Your task to perform on an android device: check android version Image 0: 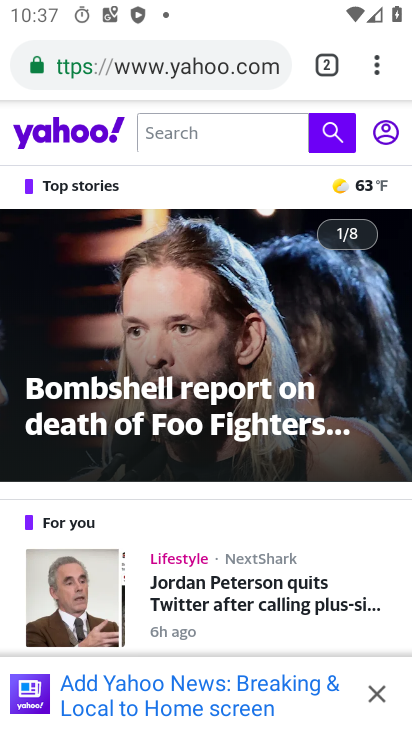
Step 0: press back button
Your task to perform on an android device: check android version Image 1: 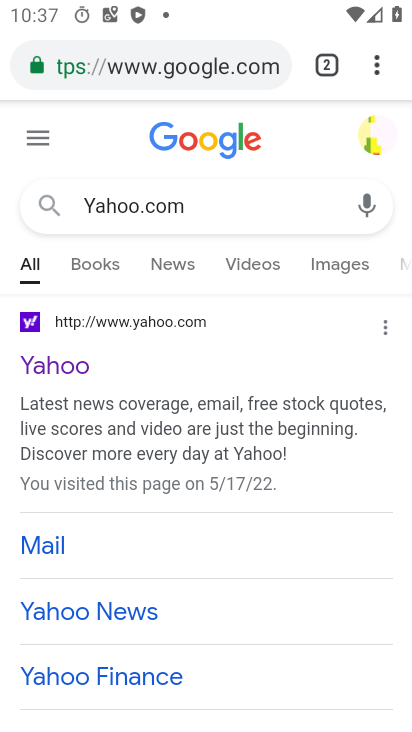
Step 1: press back button
Your task to perform on an android device: check android version Image 2: 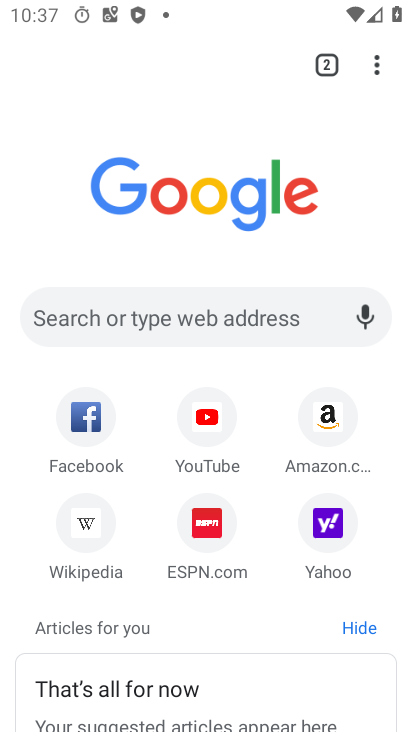
Step 2: press back button
Your task to perform on an android device: check android version Image 3: 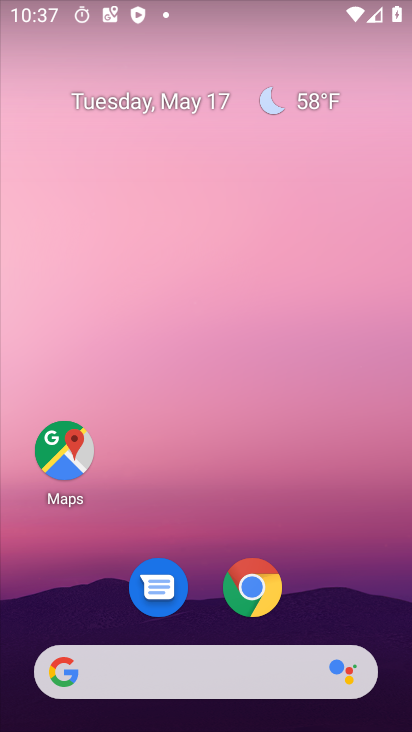
Step 3: drag from (326, 606) to (286, 73)
Your task to perform on an android device: check android version Image 4: 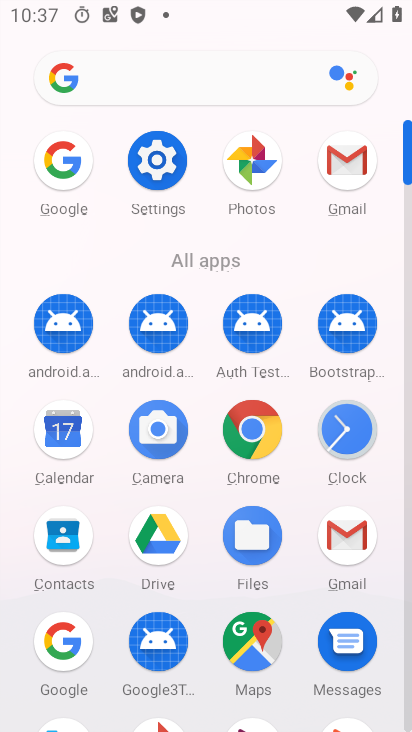
Step 4: click (157, 159)
Your task to perform on an android device: check android version Image 5: 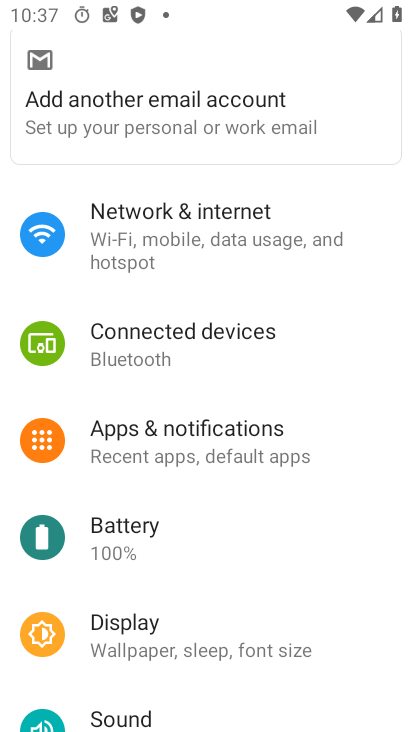
Step 5: drag from (167, 497) to (172, 390)
Your task to perform on an android device: check android version Image 6: 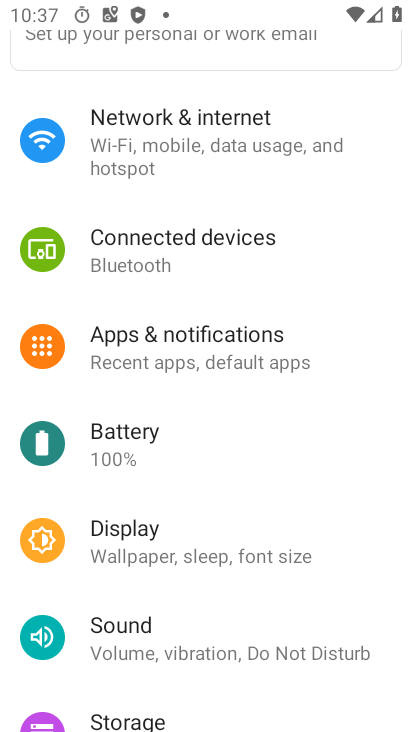
Step 6: drag from (179, 508) to (181, 428)
Your task to perform on an android device: check android version Image 7: 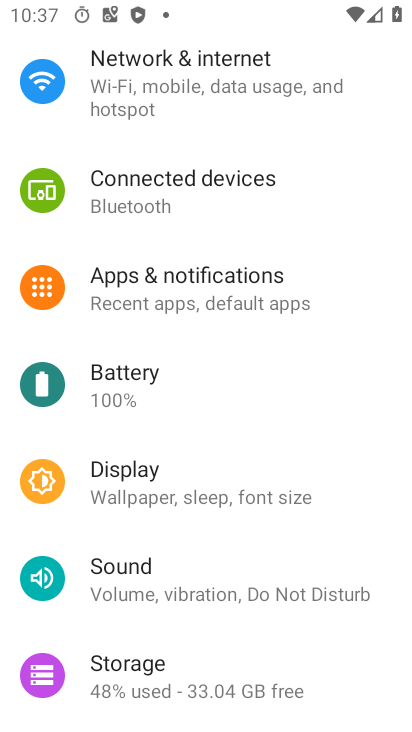
Step 7: drag from (176, 551) to (191, 452)
Your task to perform on an android device: check android version Image 8: 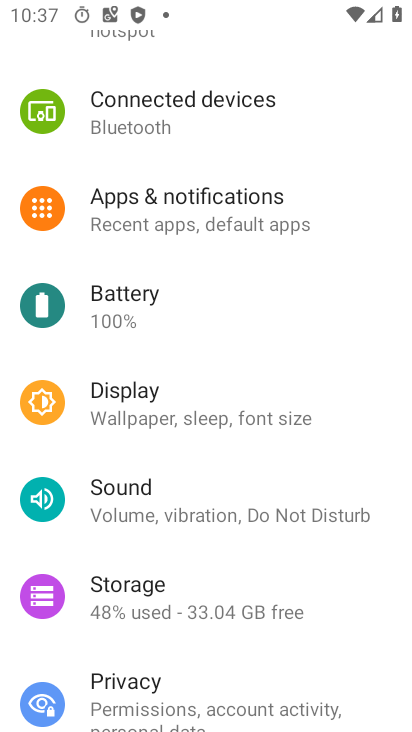
Step 8: drag from (167, 550) to (191, 462)
Your task to perform on an android device: check android version Image 9: 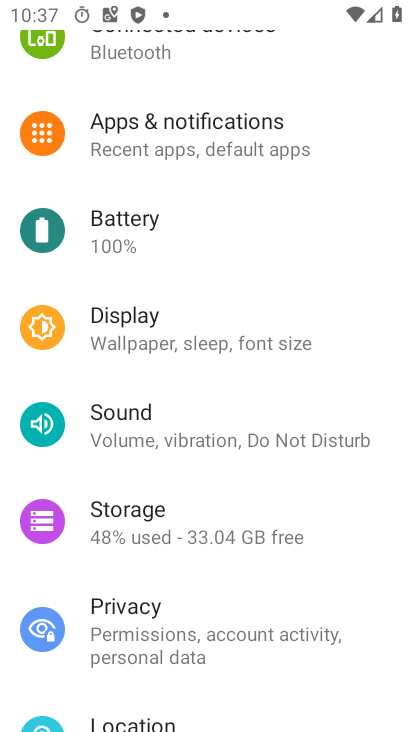
Step 9: drag from (150, 569) to (185, 475)
Your task to perform on an android device: check android version Image 10: 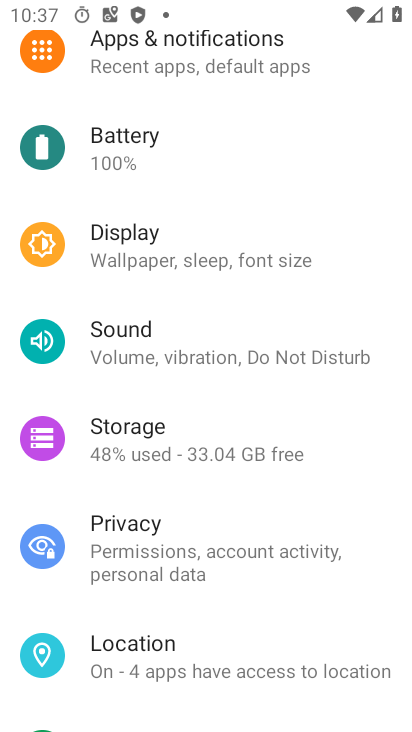
Step 10: drag from (145, 591) to (189, 495)
Your task to perform on an android device: check android version Image 11: 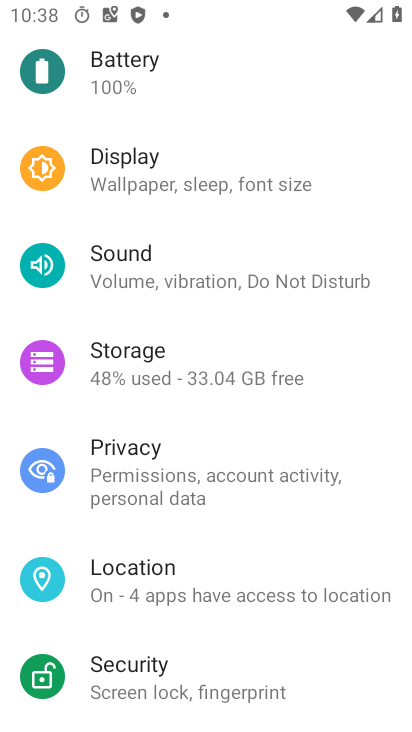
Step 11: drag from (130, 625) to (195, 522)
Your task to perform on an android device: check android version Image 12: 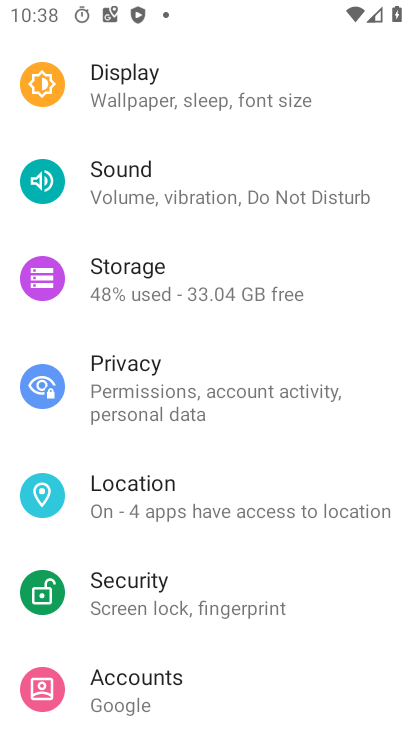
Step 12: drag from (141, 542) to (163, 448)
Your task to perform on an android device: check android version Image 13: 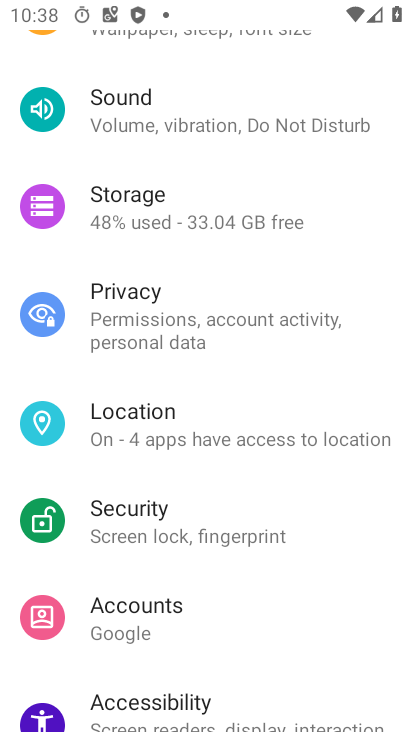
Step 13: drag from (131, 580) to (210, 481)
Your task to perform on an android device: check android version Image 14: 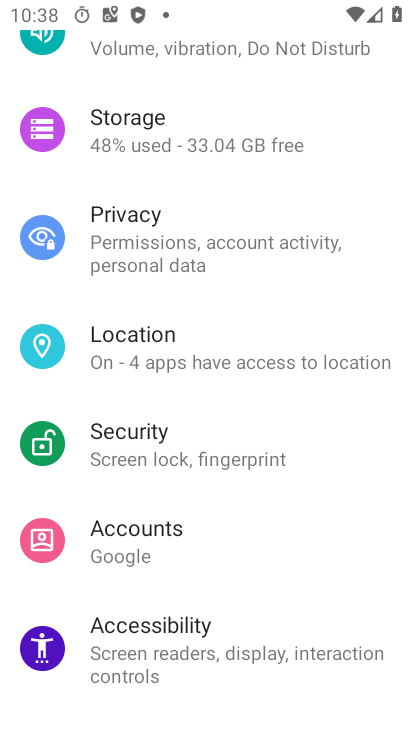
Step 14: drag from (111, 594) to (174, 501)
Your task to perform on an android device: check android version Image 15: 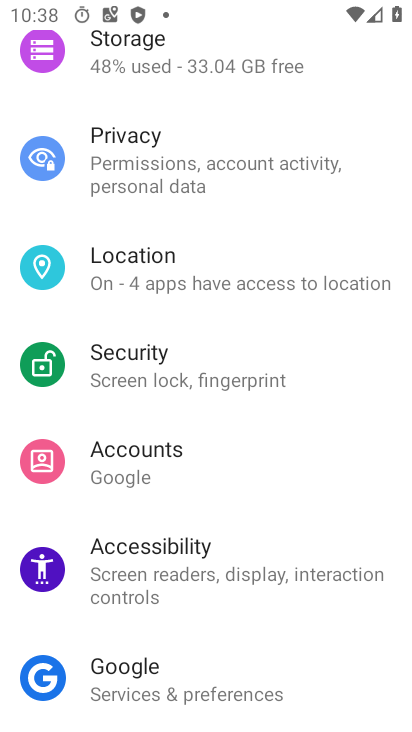
Step 15: drag from (131, 627) to (165, 531)
Your task to perform on an android device: check android version Image 16: 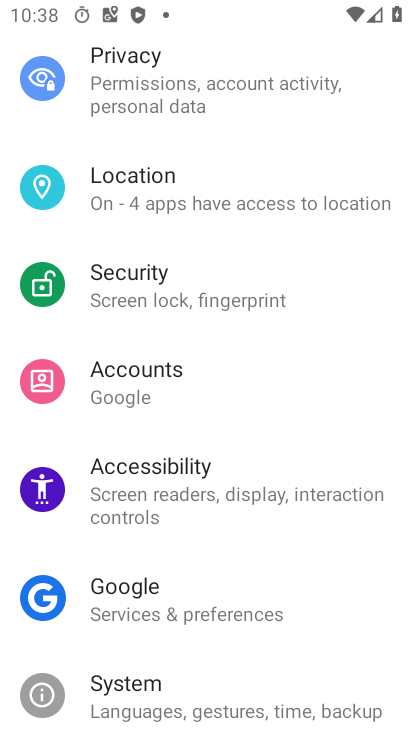
Step 16: drag from (125, 647) to (184, 505)
Your task to perform on an android device: check android version Image 17: 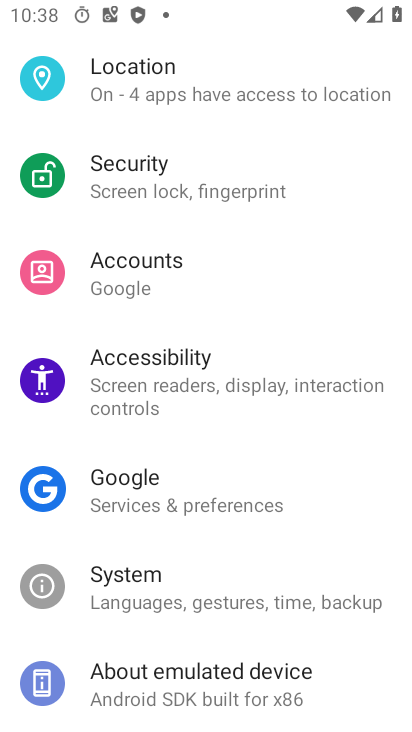
Step 17: drag from (130, 637) to (168, 555)
Your task to perform on an android device: check android version Image 18: 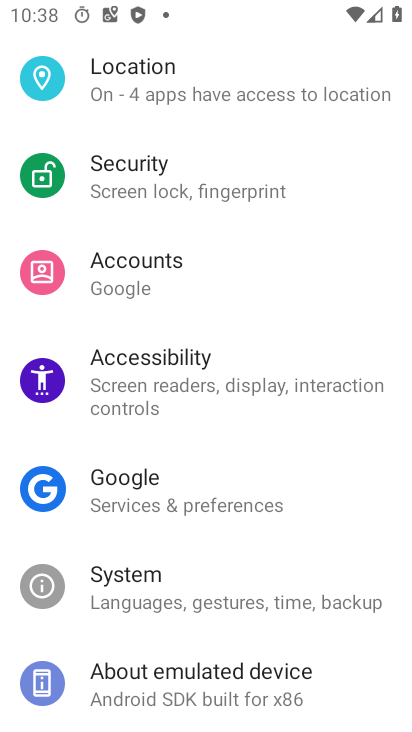
Step 18: click (145, 670)
Your task to perform on an android device: check android version Image 19: 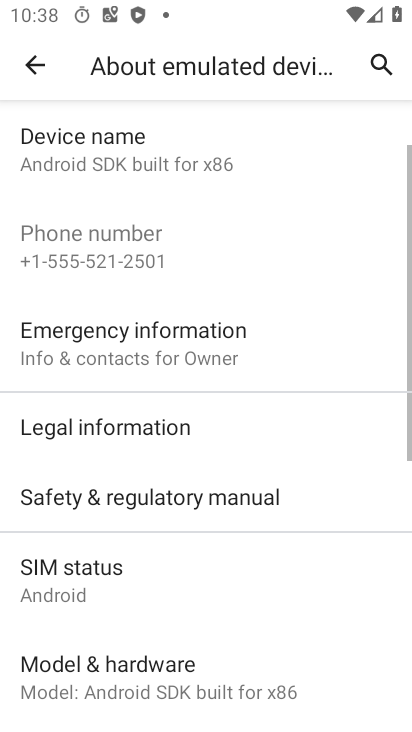
Step 19: drag from (163, 548) to (213, 452)
Your task to perform on an android device: check android version Image 20: 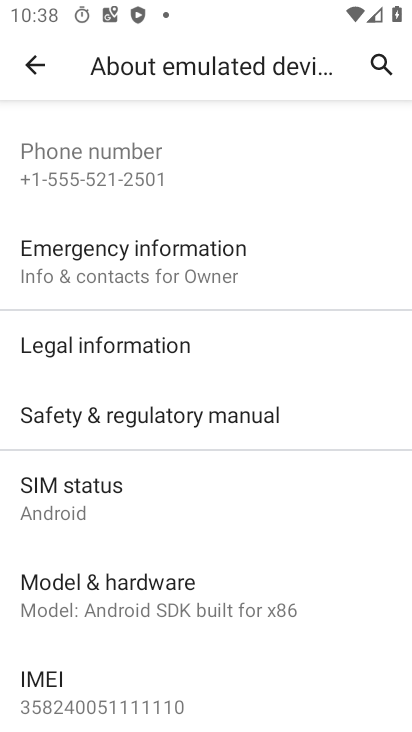
Step 20: drag from (138, 624) to (189, 520)
Your task to perform on an android device: check android version Image 21: 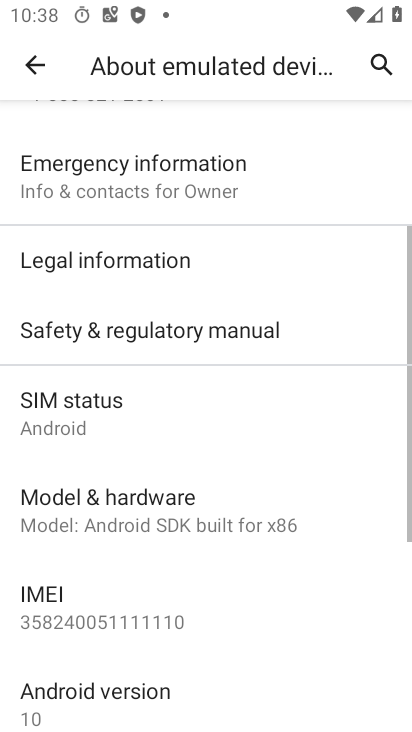
Step 21: drag from (132, 589) to (207, 474)
Your task to perform on an android device: check android version Image 22: 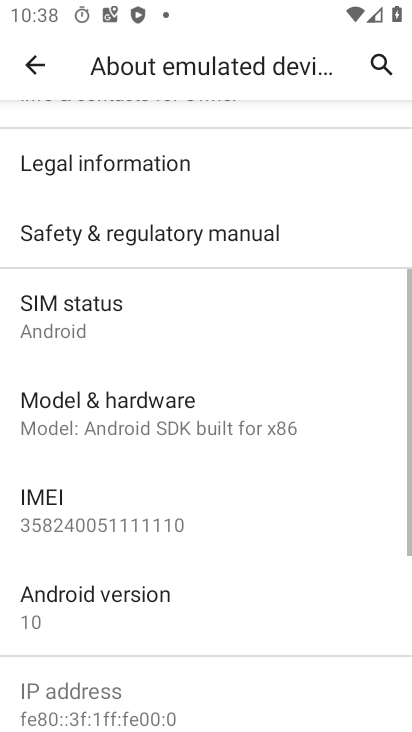
Step 22: click (125, 600)
Your task to perform on an android device: check android version Image 23: 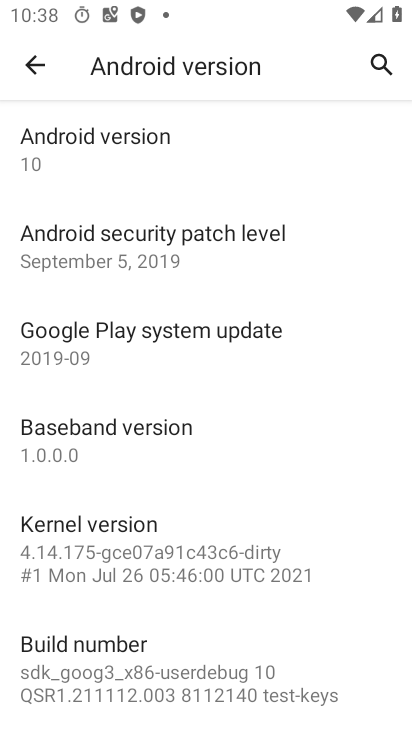
Step 23: task complete